Your task to perform on an android device: Open my contact list Image 0: 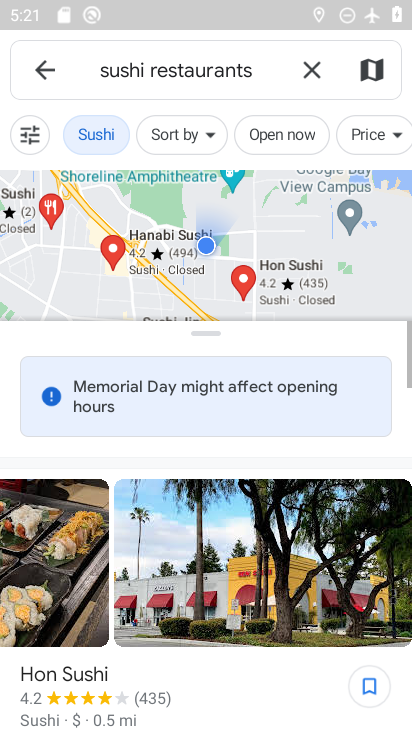
Step 0: press back button
Your task to perform on an android device: Open my contact list Image 1: 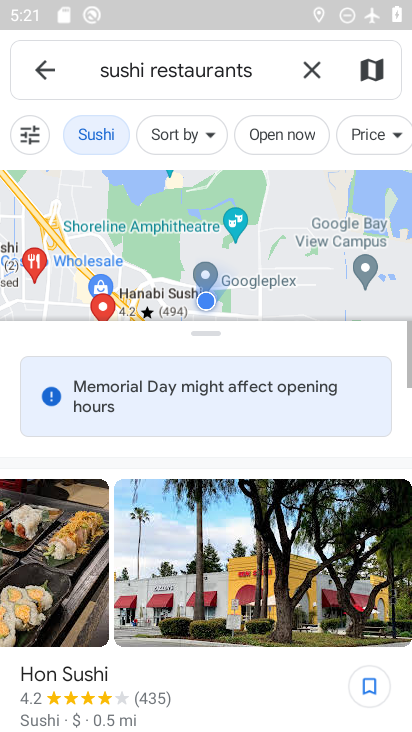
Step 1: press home button
Your task to perform on an android device: Open my contact list Image 2: 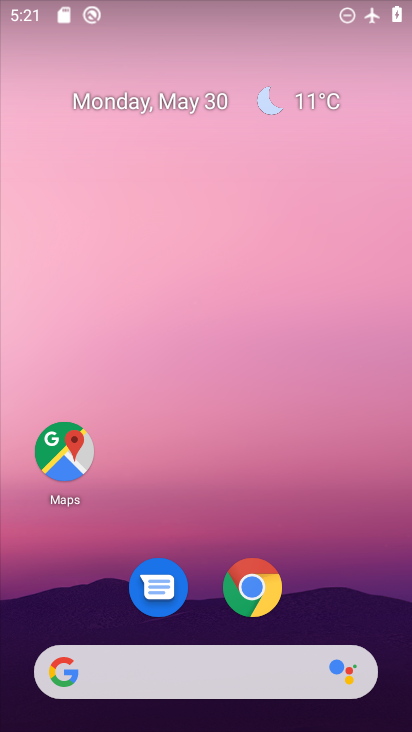
Step 2: drag from (318, 559) to (284, 13)
Your task to perform on an android device: Open my contact list Image 3: 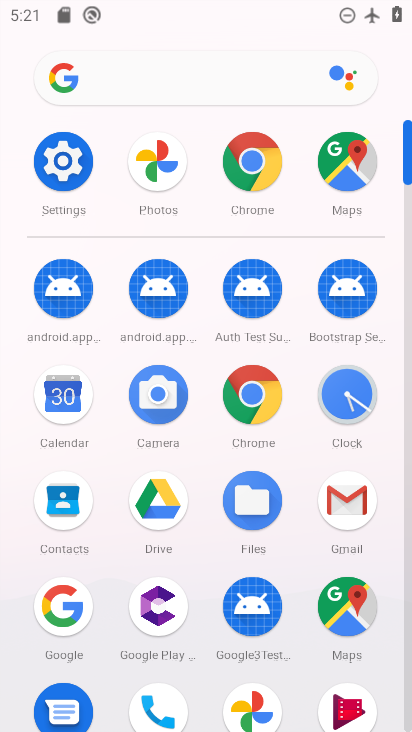
Step 3: drag from (22, 624) to (22, 295)
Your task to perform on an android device: Open my contact list Image 4: 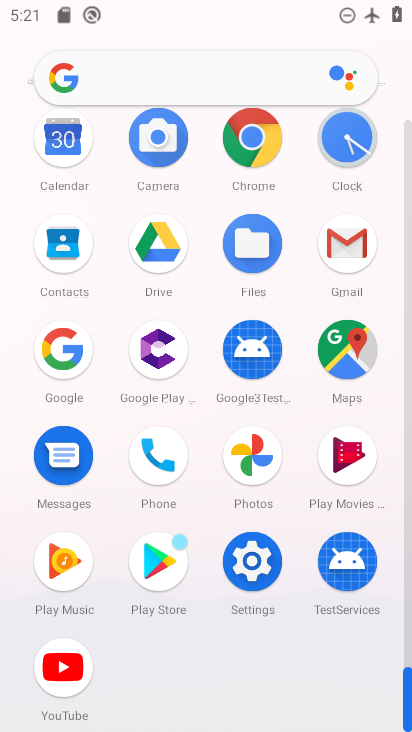
Step 4: click (62, 240)
Your task to perform on an android device: Open my contact list Image 5: 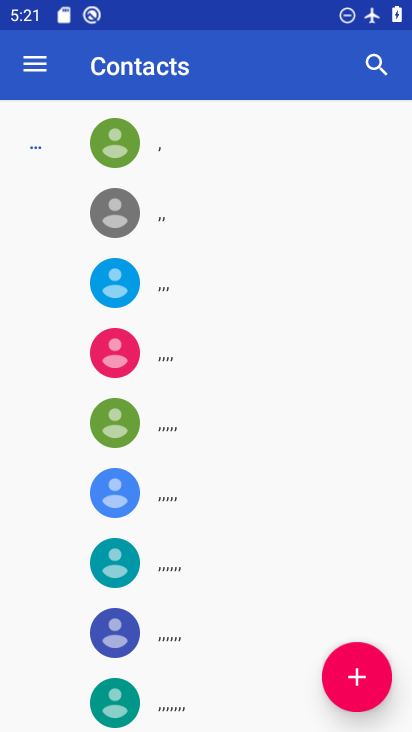
Step 5: task complete